Your task to perform on an android device: toggle improve location accuracy Image 0: 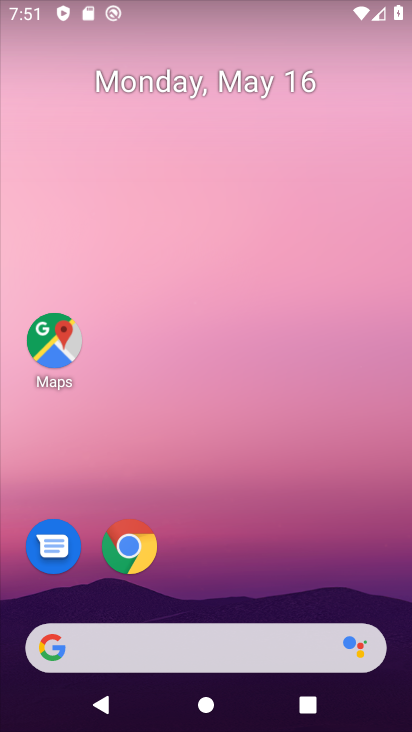
Step 0: drag from (271, 584) to (279, 34)
Your task to perform on an android device: toggle improve location accuracy Image 1: 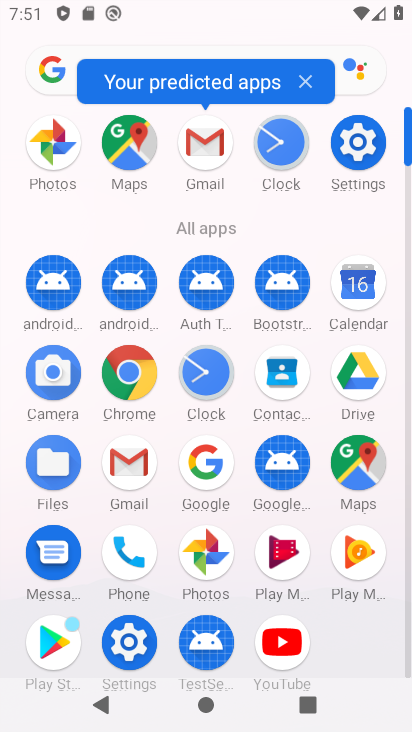
Step 1: click (142, 643)
Your task to perform on an android device: toggle improve location accuracy Image 2: 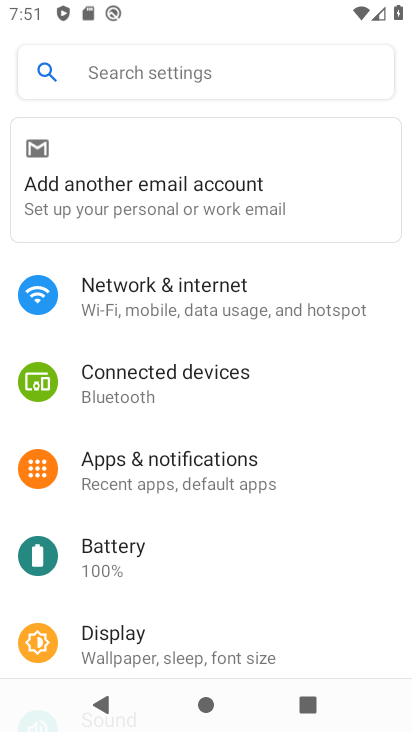
Step 2: drag from (218, 576) to (256, 154)
Your task to perform on an android device: toggle improve location accuracy Image 3: 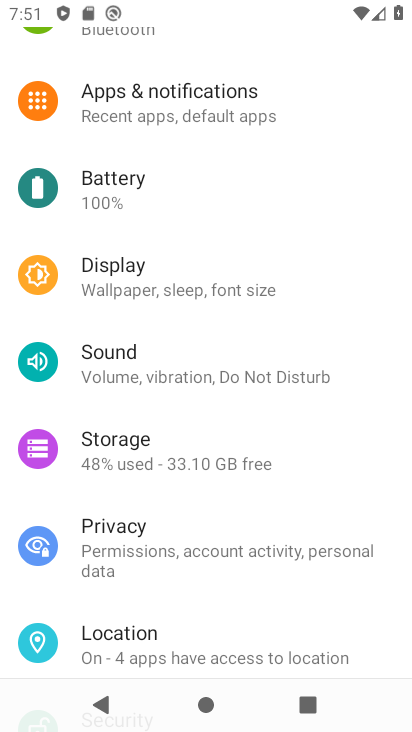
Step 3: drag from (250, 577) to (267, 299)
Your task to perform on an android device: toggle improve location accuracy Image 4: 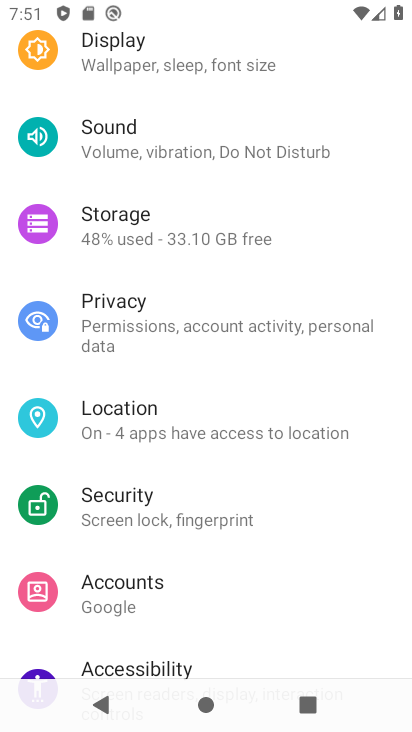
Step 4: click (231, 414)
Your task to perform on an android device: toggle improve location accuracy Image 5: 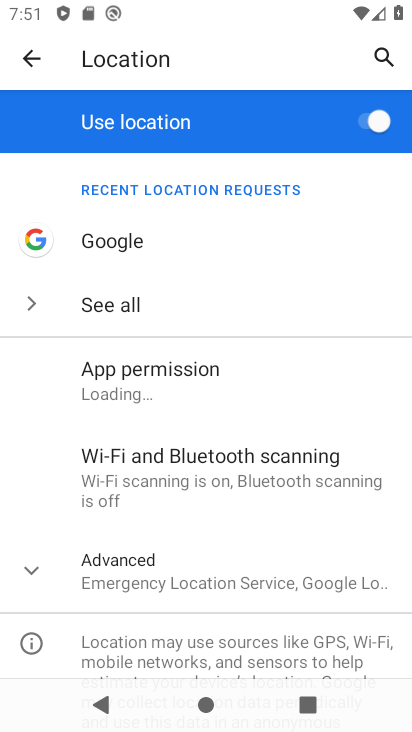
Step 5: click (203, 549)
Your task to perform on an android device: toggle improve location accuracy Image 6: 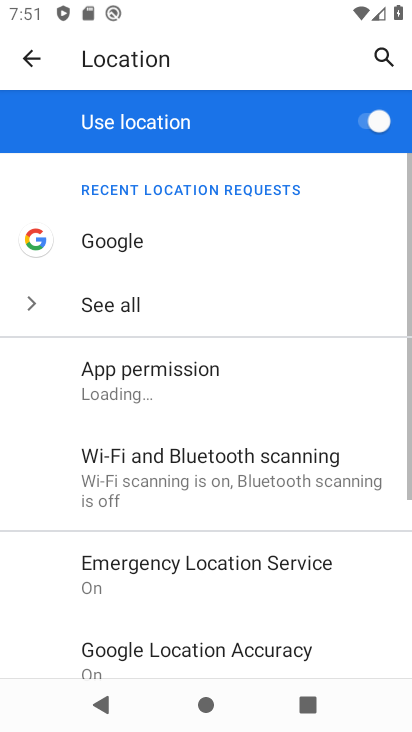
Step 6: drag from (201, 552) to (226, 285)
Your task to perform on an android device: toggle improve location accuracy Image 7: 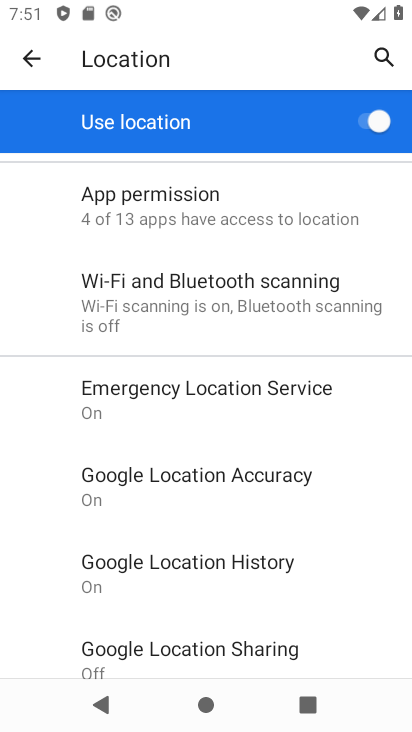
Step 7: click (229, 477)
Your task to perform on an android device: toggle improve location accuracy Image 8: 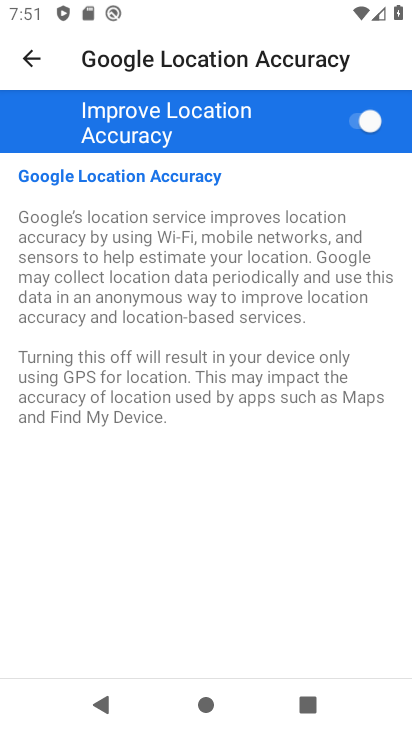
Step 8: click (372, 117)
Your task to perform on an android device: toggle improve location accuracy Image 9: 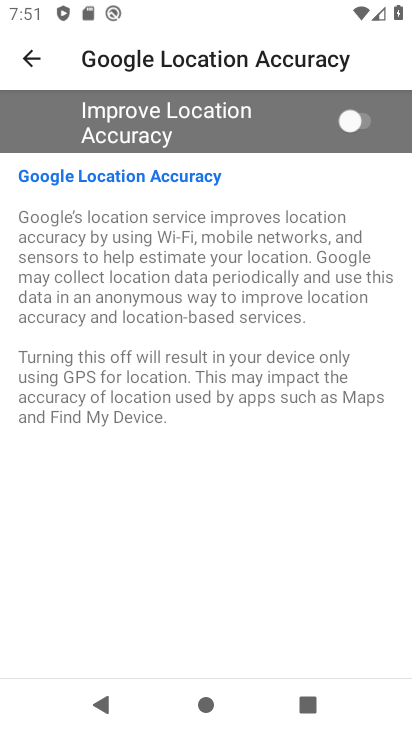
Step 9: task complete